Your task to perform on an android device: open the mobile data screen to see how much data has been used Image 0: 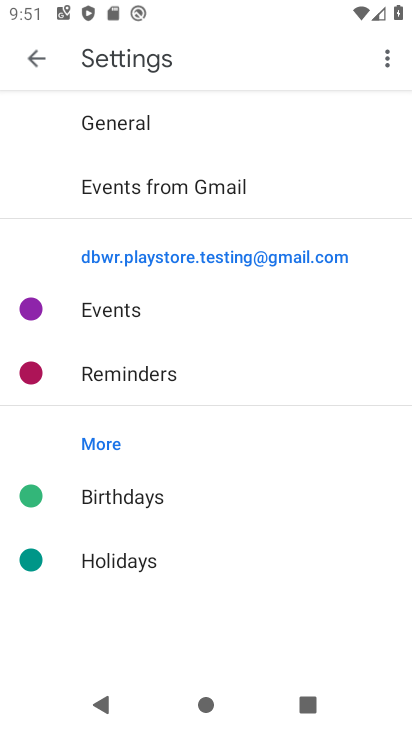
Step 0: press home button
Your task to perform on an android device: open the mobile data screen to see how much data has been used Image 1: 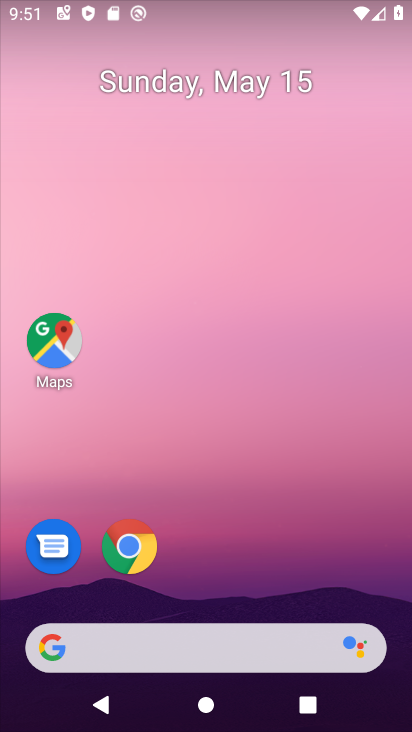
Step 1: drag from (265, 584) to (263, 159)
Your task to perform on an android device: open the mobile data screen to see how much data has been used Image 2: 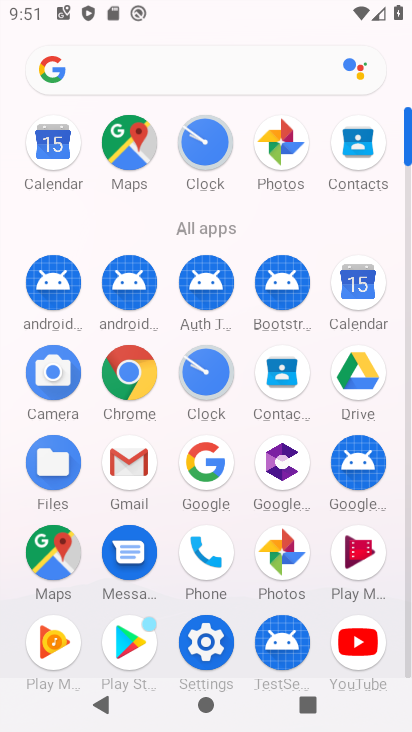
Step 2: click (220, 644)
Your task to perform on an android device: open the mobile data screen to see how much data has been used Image 3: 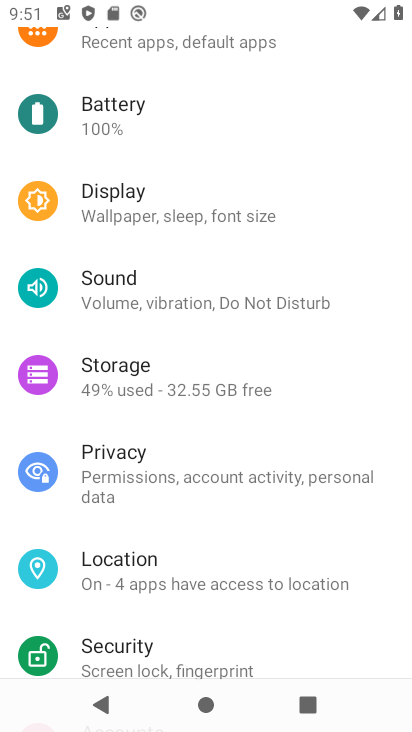
Step 3: drag from (186, 169) to (162, 601)
Your task to perform on an android device: open the mobile data screen to see how much data has been used Image 4: 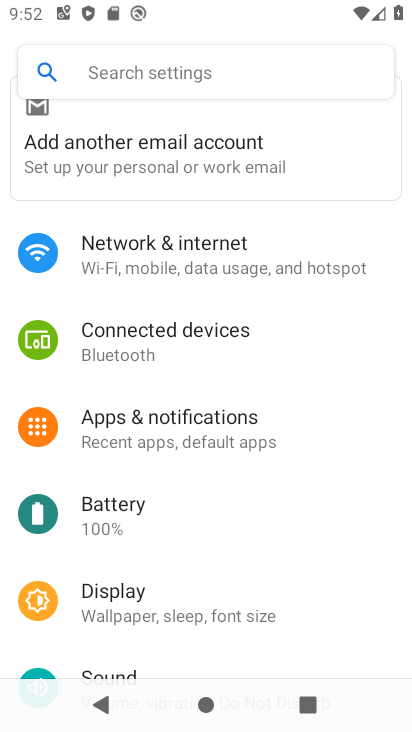
Step 4: click (183, 272)
Your task to perform on an android device: open the mobile data screen to see how much data has been used Image 5: 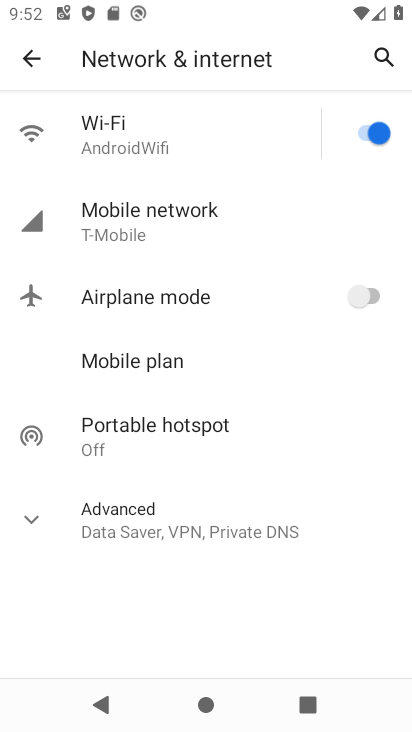
Step 5: click (146, 214)
Your task to perform on an android device: open the mobile data screen to see how much data has been used Image 6: 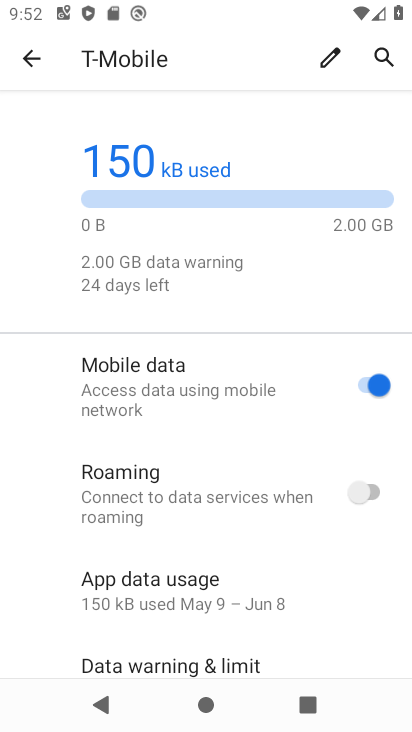
Step 6: task complete